Your task to perform on an android device: Open display settings Image 0: 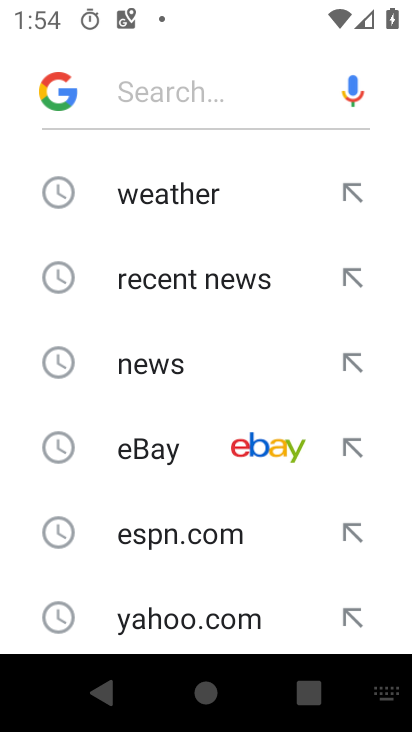
Step 0: press home button
Your task to perform on an android device: Open display settings Image 1: 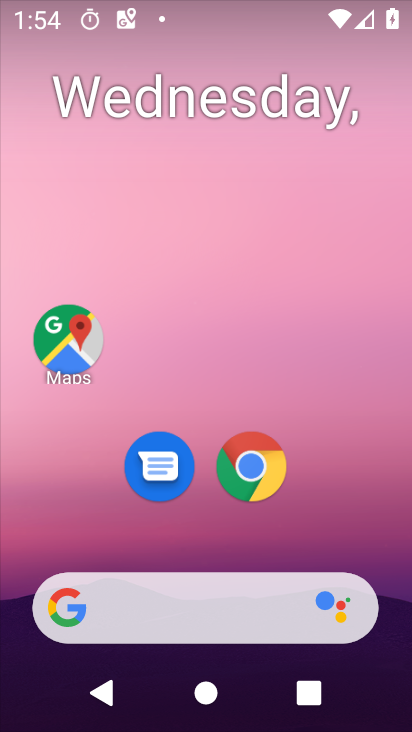
Step 1: drag from (347, 488) to (344, 234)
Your task to perform on an android device: Open display settings Image 2: 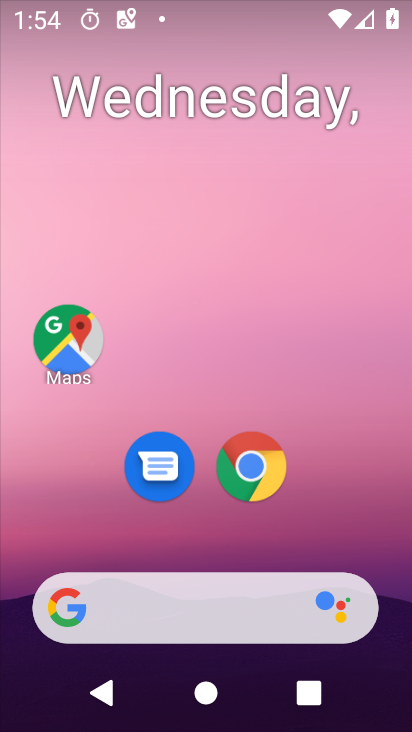
Step 2: drag from (220, 533) to (196, 229)
Your task to perform on an android device: Open display settings Image 3: 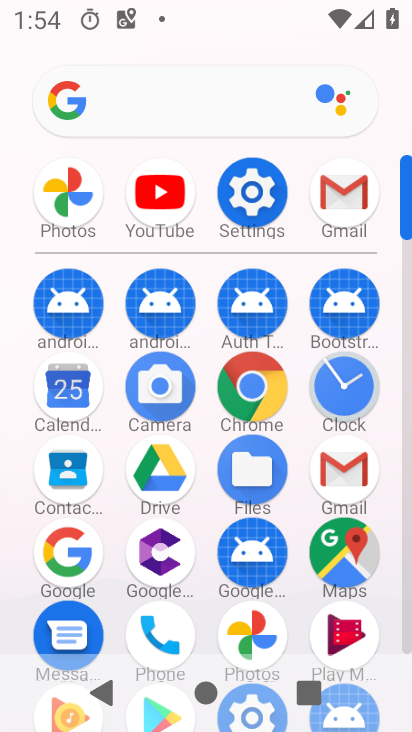
Step 3: click (245, 212)
Your task to perform on an android device: Open display settings Image 4: 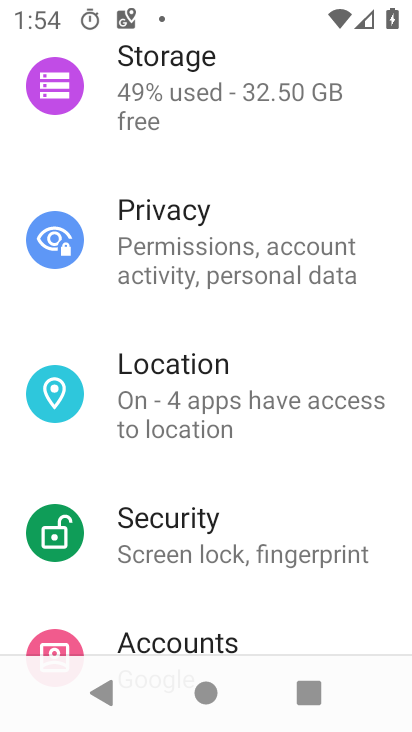
Step 4: drag from (270, 144) to (291, 474)
Your task to perform on an android device: Open display settings Image 5: 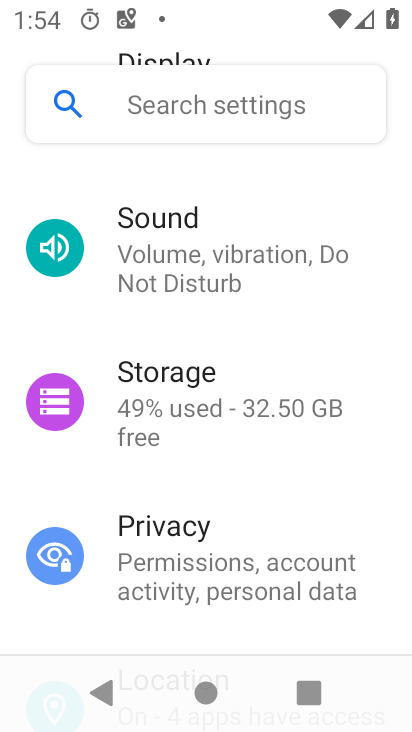
Step 5: click (261, 499)
Your task to perform on an android device: Open display settings Image 6: 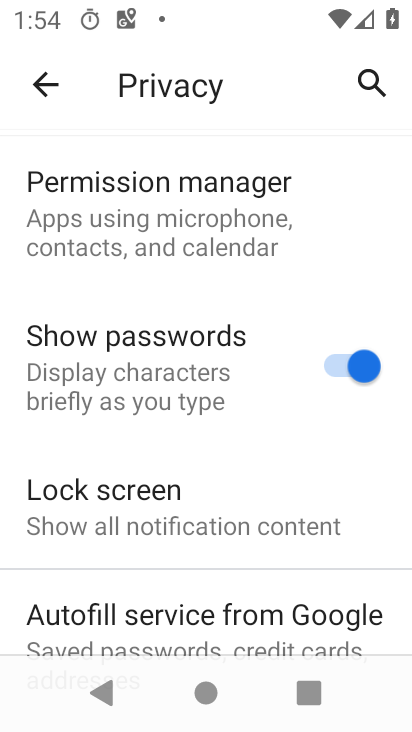
Step 6: press back button
Your task to perform on an android device: Open display settings Image 7: 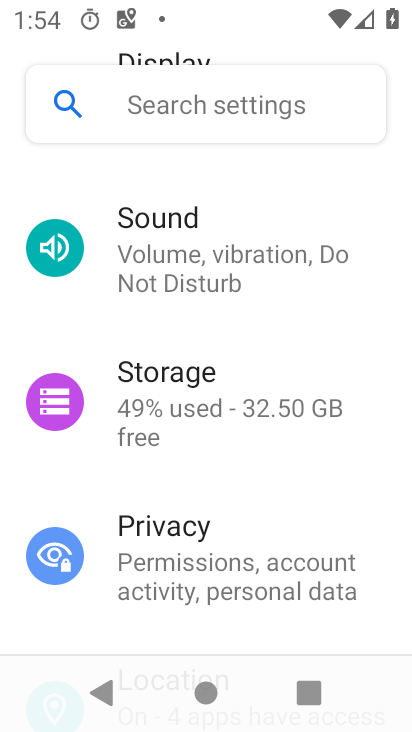
Step 7: drag from (216, 196) to (230, 368)
Your task to perform on an android device: Open display settings Image 8: 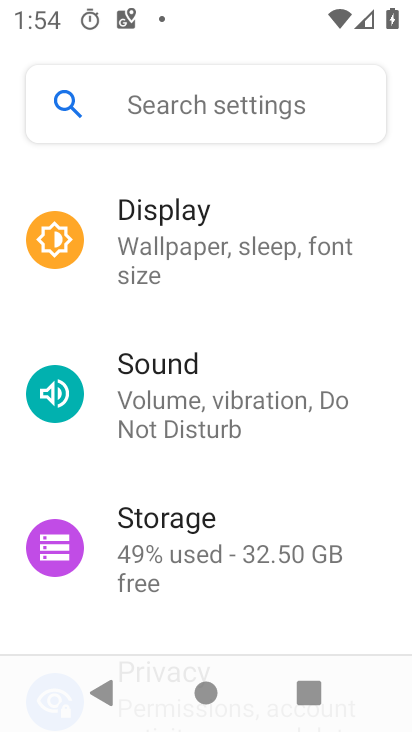
Step 8: click (228, 278)
Your task to perform on an android device: Open display settings Image 9: 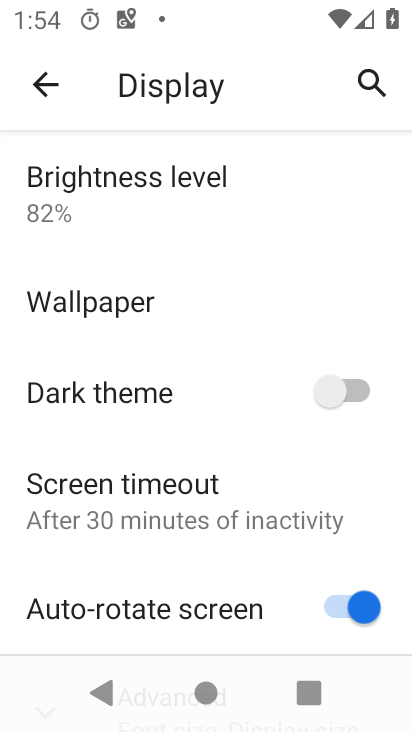
Step 9: task complete